Your task to perform on an android device: Search for "logitech g502" on amazon, select the first entry, add it to the cart, then select checkout. Image 0: 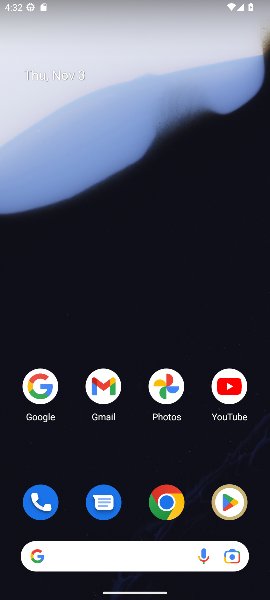
Step 0: click (169, 505)
Your task to perform on an android device: Search for "logitech g502" on amazon, select the first entry, add it to the cart, then select checkout. Image 1: 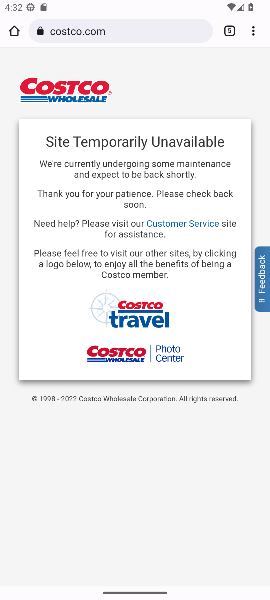
Step 1: click (227, 32)
Your task to perform on an android device: Search for "logitech g502" on amazon, select the first entry, add it to the cart, then select checkout. Image 2: 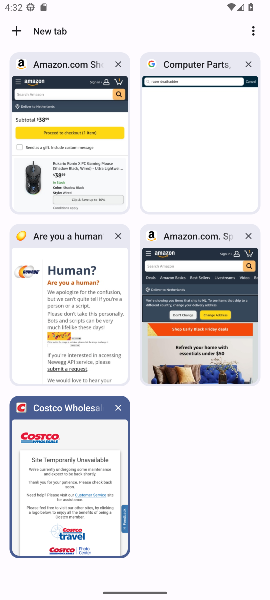
Step 2: click (15, 31)
Your task to perform on an android device: Search for "logitech g502" on amazon, select the first entry, add it to the cart, then select checkout. Image 3: 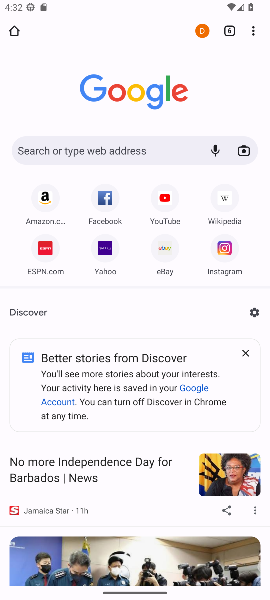
Step 3: click (44, 196)
Your task to perform on an android device: Search for "logitech g502" on amazon, select the first entry, add it to the cart, then select checkout. Image 4: 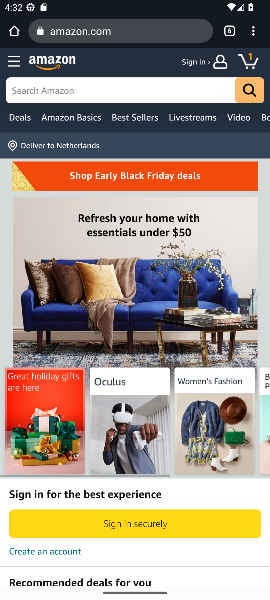
Step 4: click (132, 91)
Your task to perform on an android device: Search for "logitech g502" on amazon, select the first entry, add it to the cart, then select checkout. Image 5: 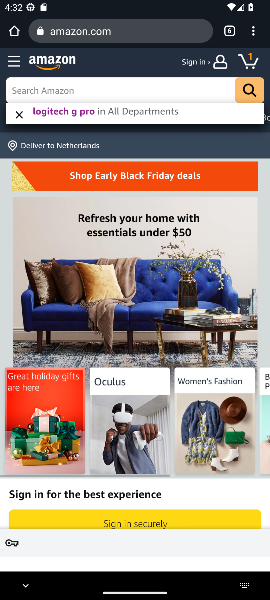
Step 5: type "logitech g502"
Your task to perform on an android device: Search for "logitech g502" on amazon, select the first entry, add it to the cart, then select checkout. Image 6: 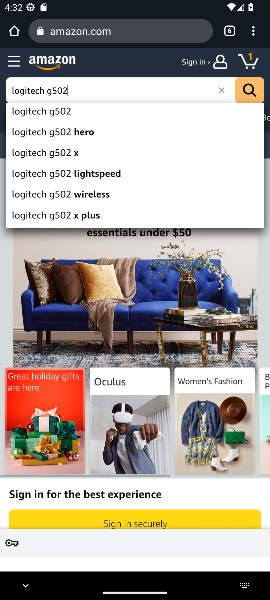
Step 6: click (57, 112)
Your task to perform on an android device: Search for "logitech g502" on amazon, select the first entry, add it to the cart, then select checkout. Image 7: 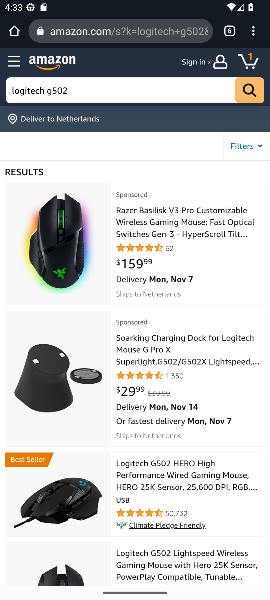
Step 7: click (176, 219)
Your task to perform on an android device: Search for "logitech g502" on amazon, select the first entry, add it to the cart, then select checkout. Image 8: 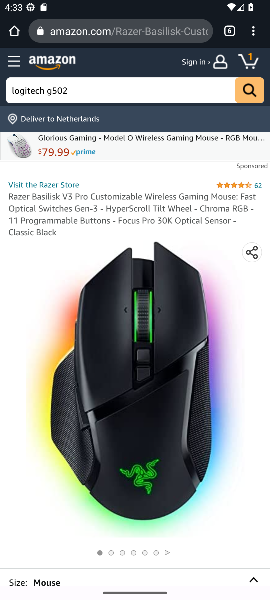
Step 8: drag from (240, 487) to (218, 309)
Your task to perform on an android device: Search for "logitech g502" on amazon, select the first entry, add it to the cart, then select checkout. Image 9: 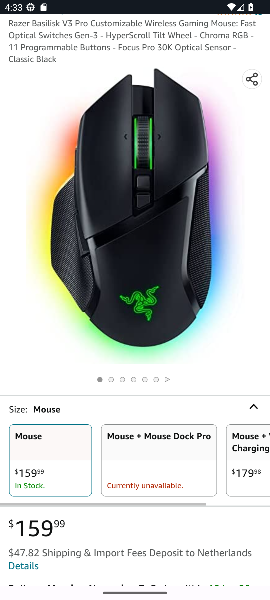
Step 9: drag from (220, 362) to (146, 92)
Your task to perform on an android device: Search for "logitech g502" on amazon, select the first entry, add it to the cart, then select checkout. Image 10: 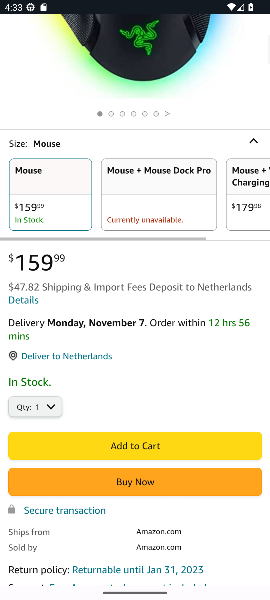
Step 10: click (135, 442)
Your task to perform on an android device: Search for "logitech g502" on amazon, select the first entry, add it to the cart, then select checkout. Image 11: 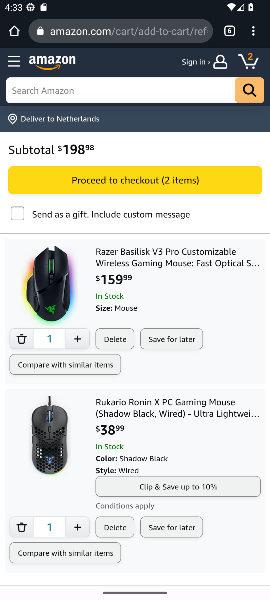
Step 11: click (131, 176)
Your task to perform on an android device: Search for "logitech g502" on amazon, select the first entry, add it to the cart, then select checkout. Image 12: 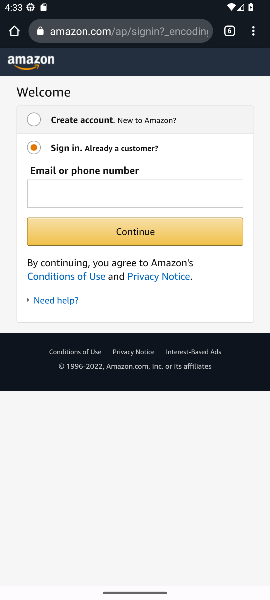
Step 12: task complete